Your task to perform on an android device: turn on priority inbox in the gmail app Image 0: 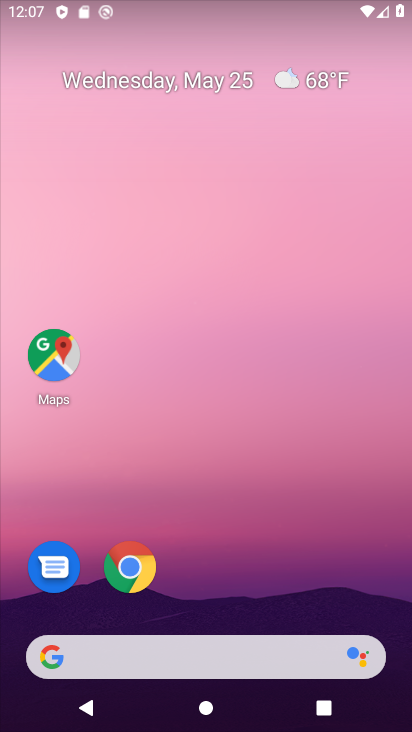
Step 0: drag from (174, 638) to (289, 62)
Your task to perform on an android device: turn on priority inbox in the gmail app Image 1: 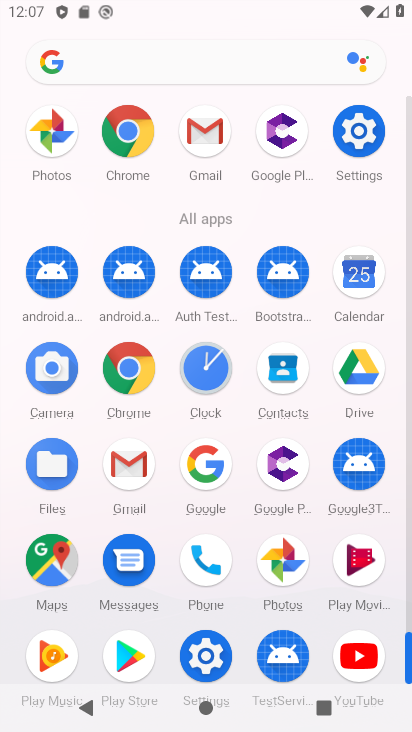
Step 1: click (122, 463)
Your task to perform on an android device: turn on priority inbox in the gmail app Image 2: 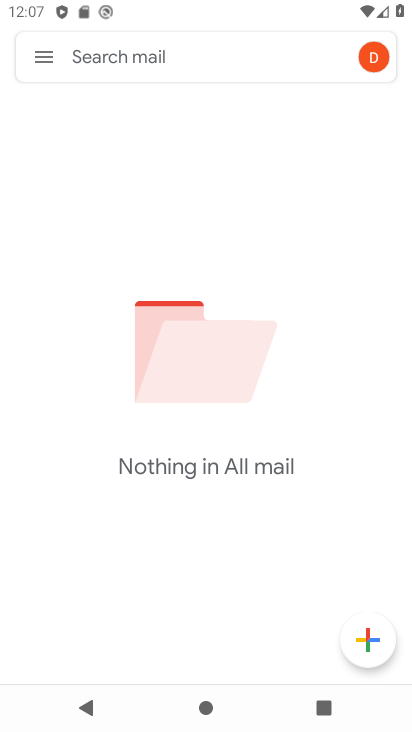
Step 2: click (40, 63)
Your task to perform on an android device: turn on priority inbox in the gmail app Image 3: 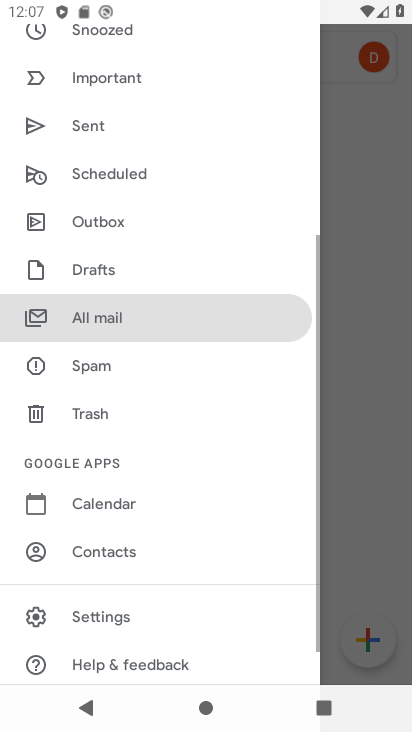
Step 3: drag from (139, 599) to (246, 273)
Your task to perform on an android device: turn on priority inbox in the gmail app Image 4: 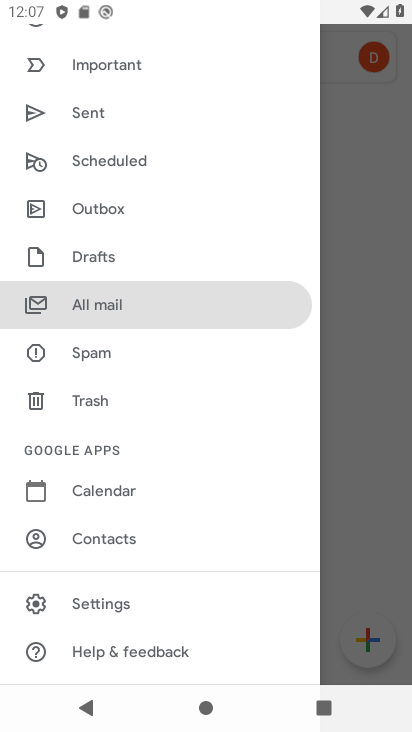
Step 4: click (140, 602)
Your task to perform on an android device: turn on priority inbox in the gmail app Image 5: 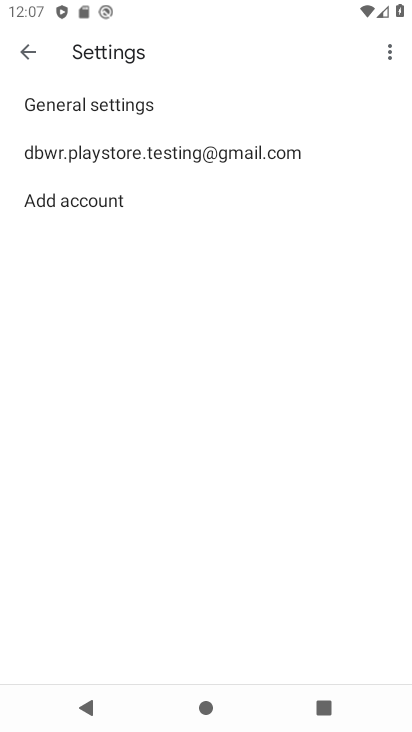
Step 5: click (231, 170)
Your task to perform on an android device: turn on priority inbox in the gmail app Image 6: 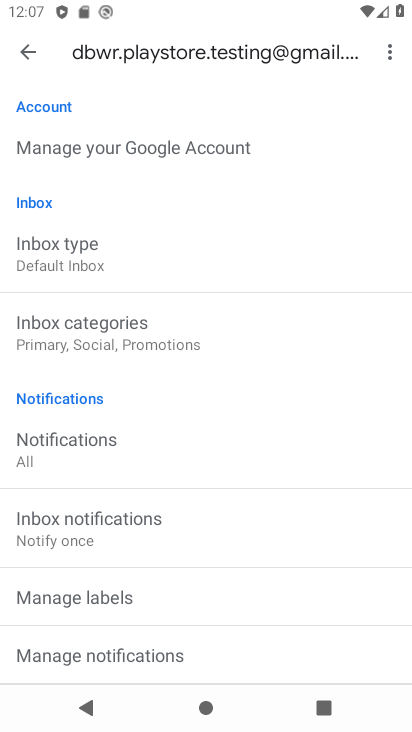
Step 6: click (235, 267)
Your task to perform on an android device: turn on priority inbox in the gmail app Image 7: 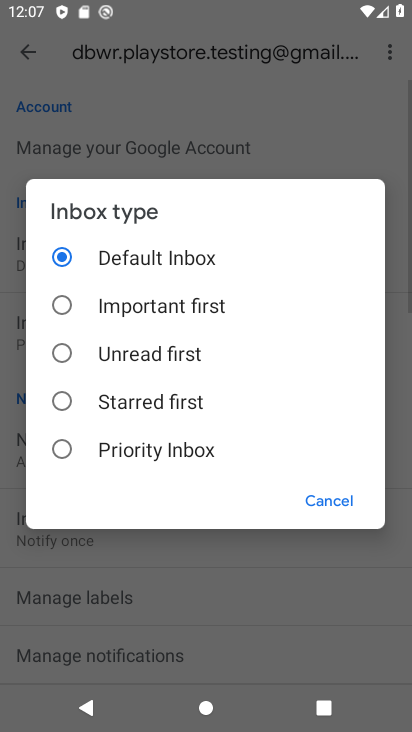
Step 7: click (178, 457)
Your task to perform on an android device: turn on priority inbox in the gmail app Image 8: 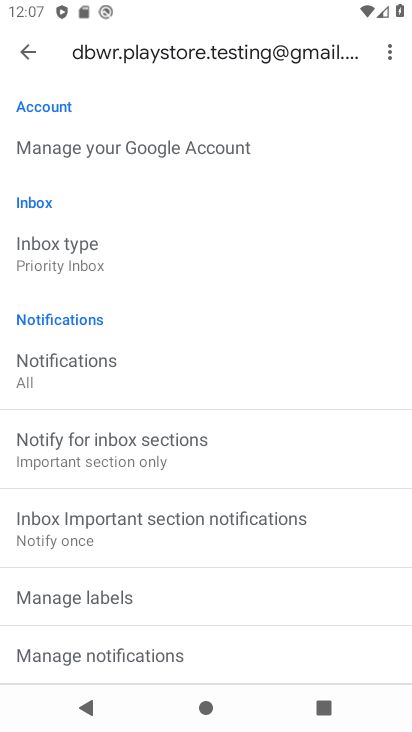
Step 8: task complete